Your task to perform on an android device: change the clock display to digital Image 0: 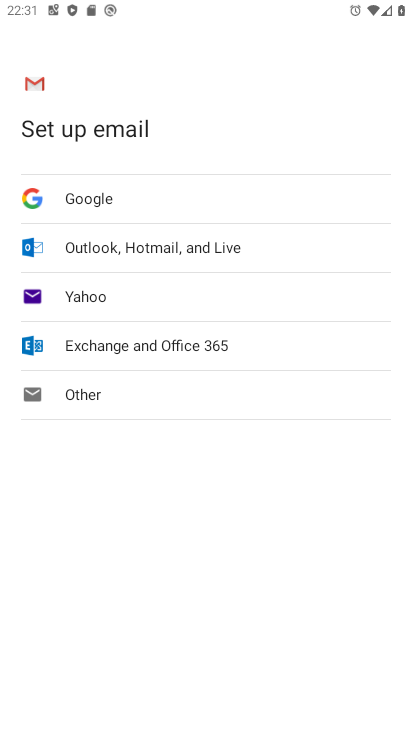
Step 0: press home button
Your task to perform on an android device: change the clock display to digital Image 1: 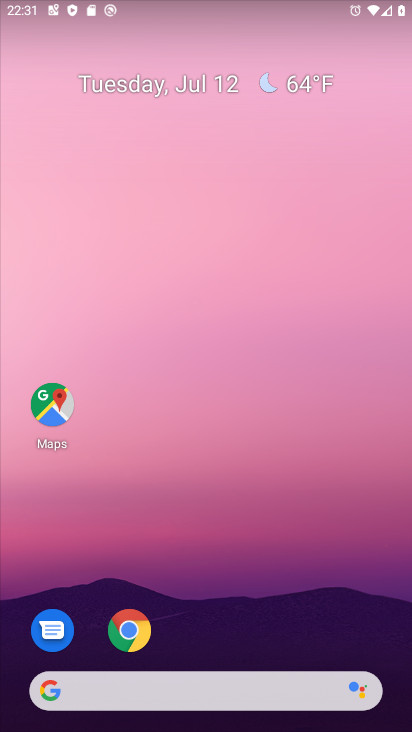
Step 1: drag from (212, 597) to (257, 24)
Your task to perform on an android device: change the clock display to digital Image 2: 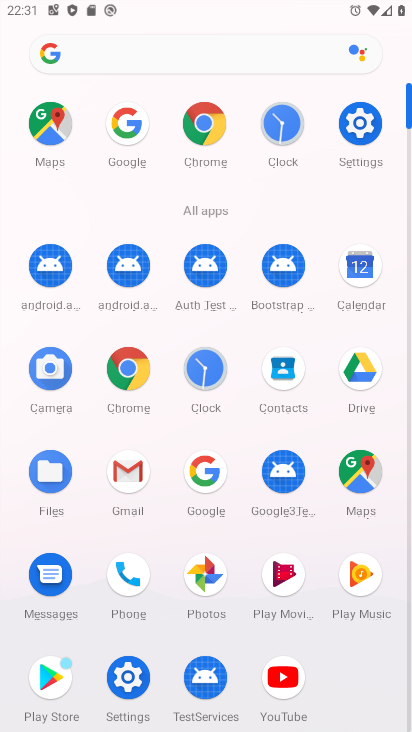
Step 2: click (198, 375)
Your task to perform on an android device: change the clock display to digital Image 3: 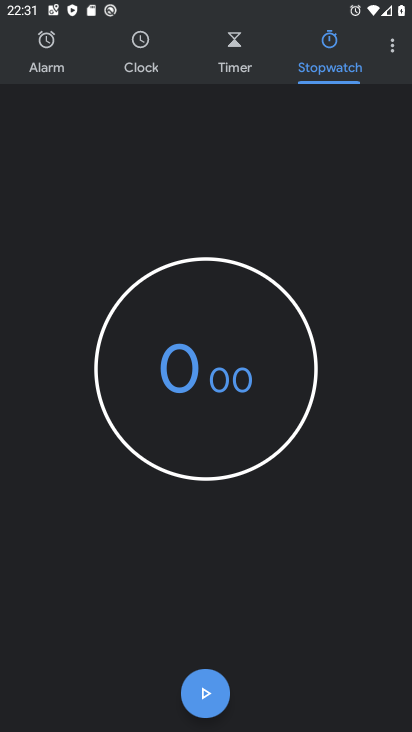
Step 3: click (392, 42)
Your task to perform on an android device: change the clock display to digital Image 4: 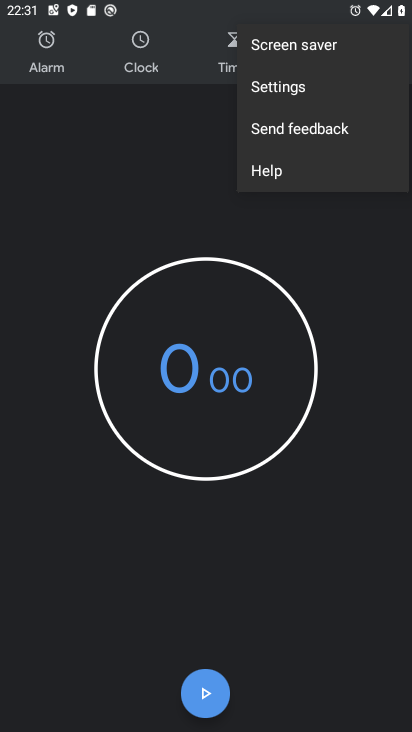
Step 4: click (291, 93)
Your task to perform on an android device: change the clock display to digital Image 5: 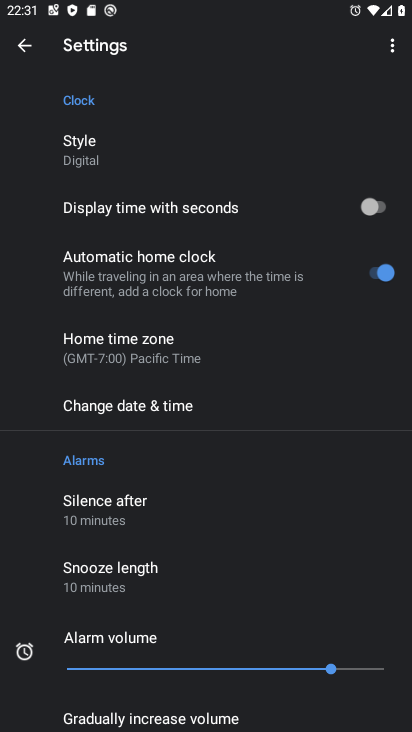
Step 5: click (71, 140)
Your task to perform on an android device: change the clock display to digital Image 6: 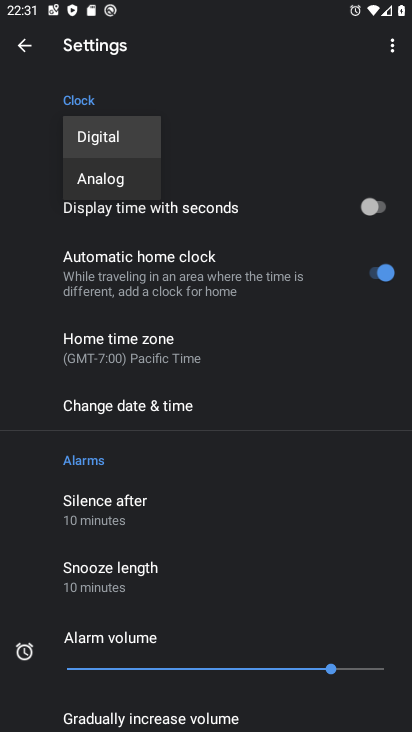
Step 6: click (107, 139)
Your task to perform on an android device: change the clock display to digital Image 7: 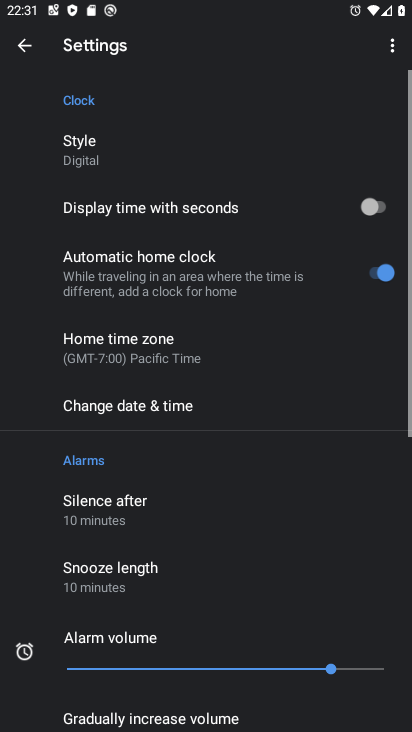
Step 7: task complete